Your task to perform on an android device: Go to network settings Image 0: 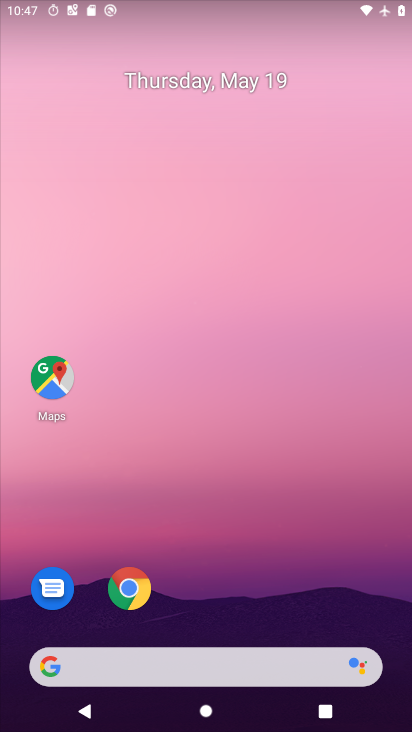
Step 0: press home button
Your task to perform on an android device: Go to network settings Image 1: 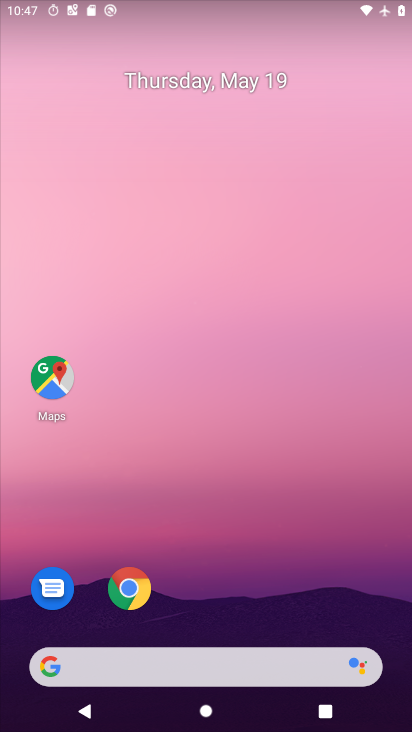
Step 1: drag from (139, 665) to (270, 188)
Your task to perform on an android device: Go to network settings Image 2: 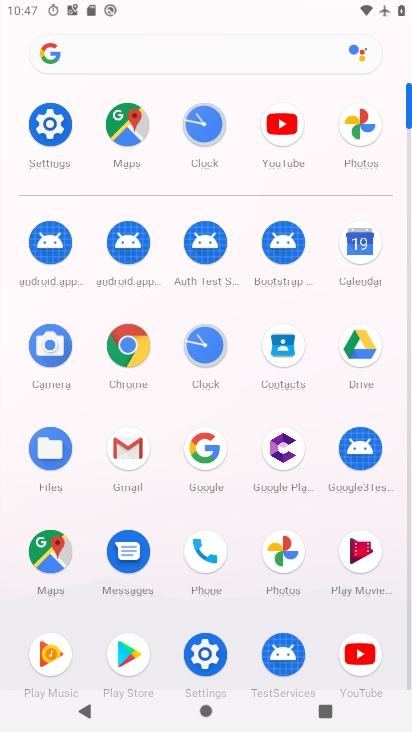
Step 2: click (59, 133)
Your task to perform on an android device: Go to network settings Image 3: 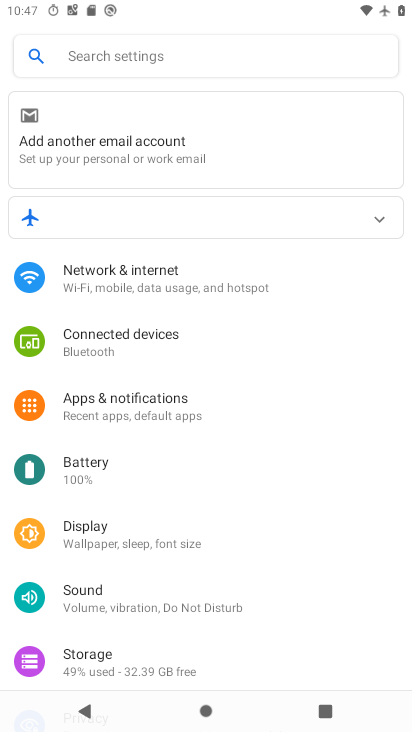
Step 3: click (121, 277)
Your task to perform on an android device: Go to network settings Image 4: 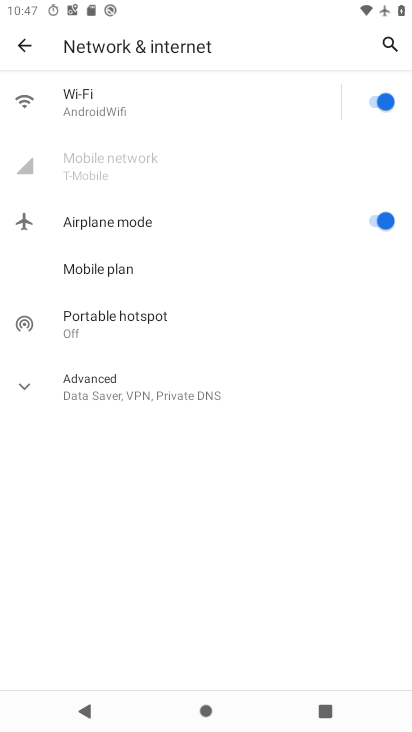
Step 4: task complete